Your task to perform on an android device: Show me the alarms in the clock app Image 0: 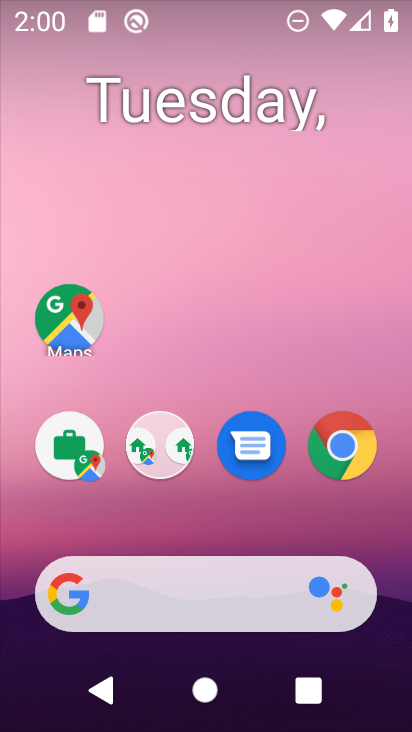
Step 0: drag from (262, 540) to (244, 134)
Your task to perform on an android device: Show me the alarms in the clock app Image 1: 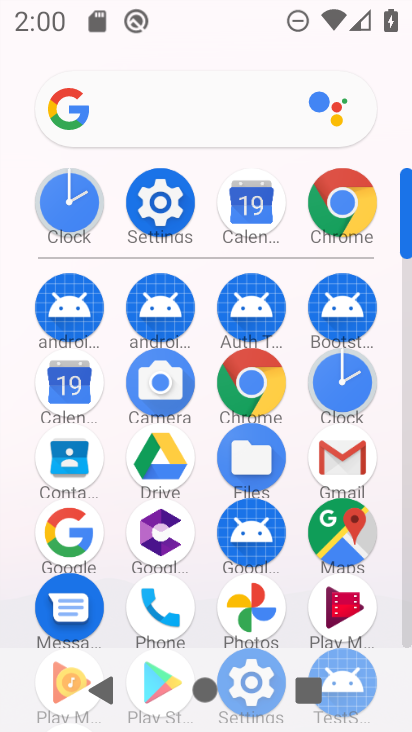
Step 1: click (350, 398)
Your task to perform on an android device: Show me the alarms in the clock app Image 2: 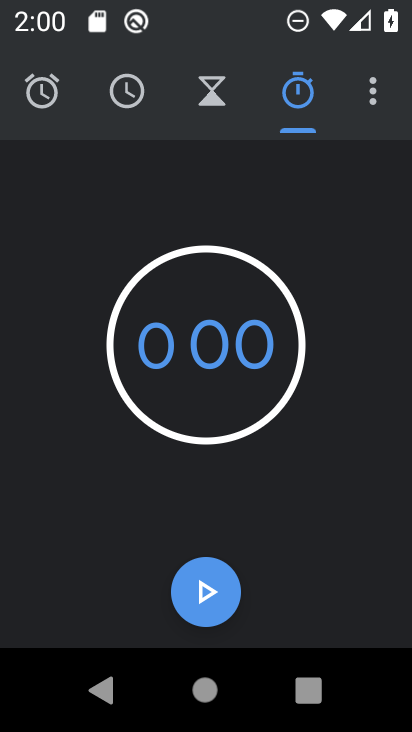
Step 2: click (45, 104)
Your task to perform on an android device: Show me the alarms in the clock app Image 3: 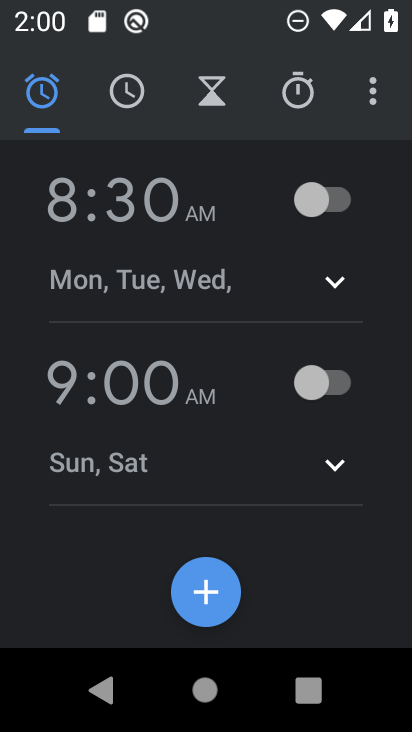
Step 3: task complete